Your task to perform on an android device: open sync settings in chrome Image 0: 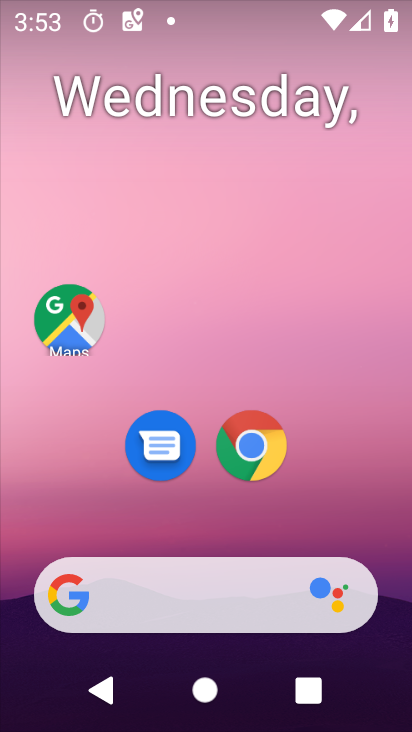
Step 0: drag from (192, 522) to (222, 122)
Your task to perform on an android device: open sync settings in chrome Image 1: 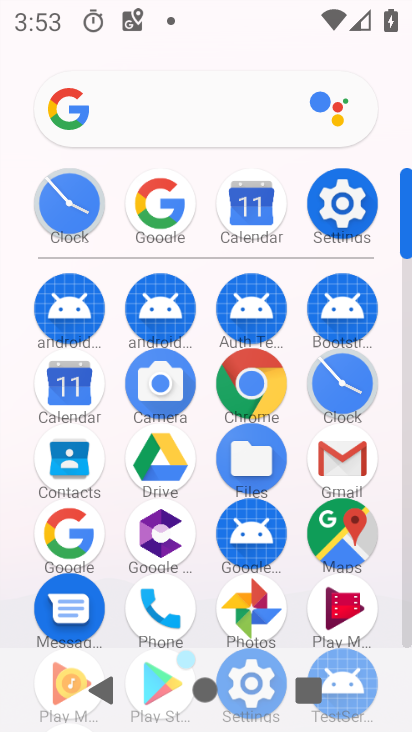
Step 1: click (250, 390)
Your task to perform on an android device: open sync settings in chrome Image 2: 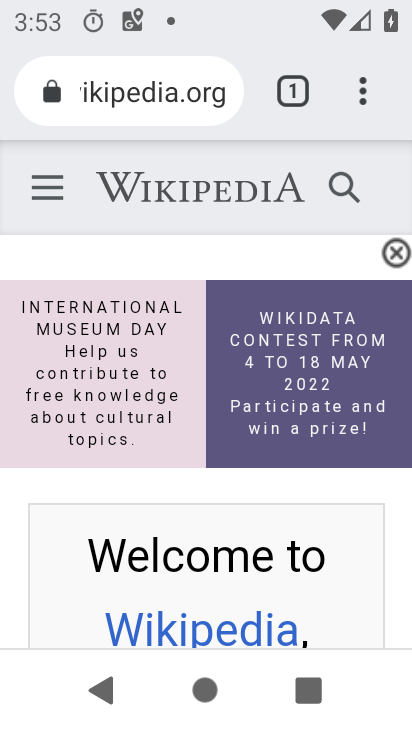
Step 2: click (359, 92)
Your task to perform on an android device: open sync settings in chrome Image 3: 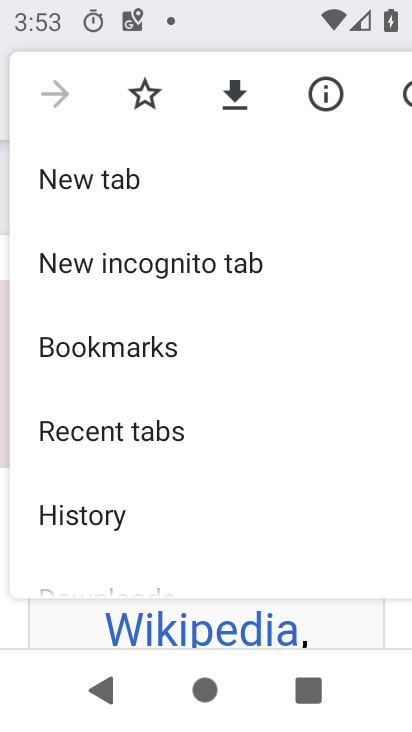
Step 3: drag from (222, 472) to (233, 66)
Your task to perform on an android device: open sync settings in chrome Image 4: 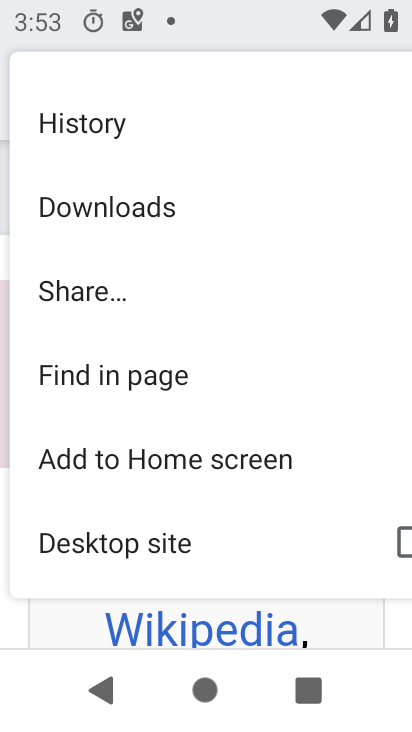
Step 4: drag from (184, 453) to (219, 142)
Your task to perform on an android device: open sync settings in chrome Image 5: 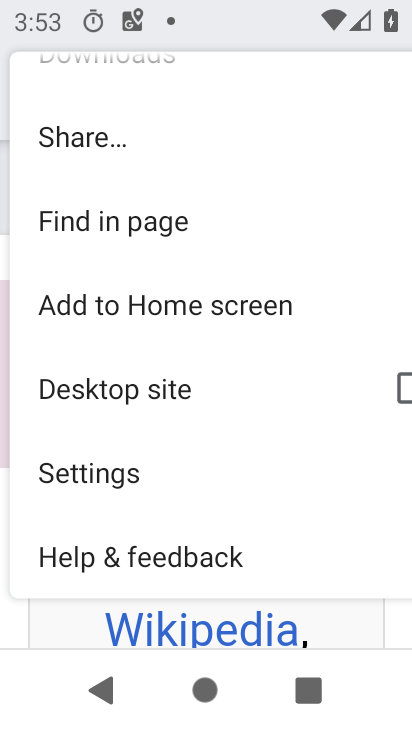
Step 5: click (153, 481)
Your task to perform on an android device: open sync settings in chrome Image 6: 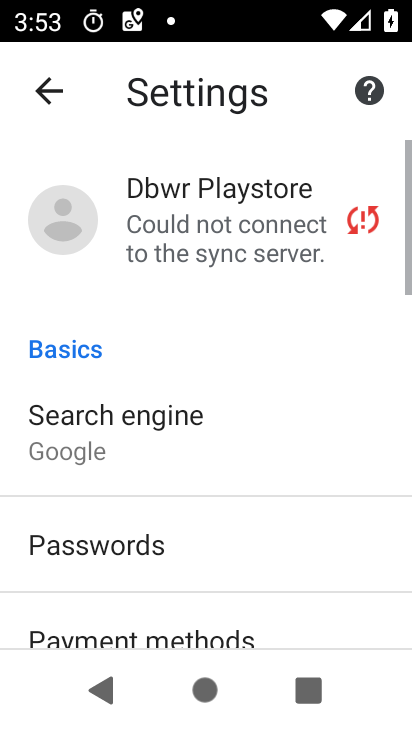
Step 6: drag from (253, 541) to (287, 103)
Your task to perform on an android device: open sync settings in chrome Image 7: 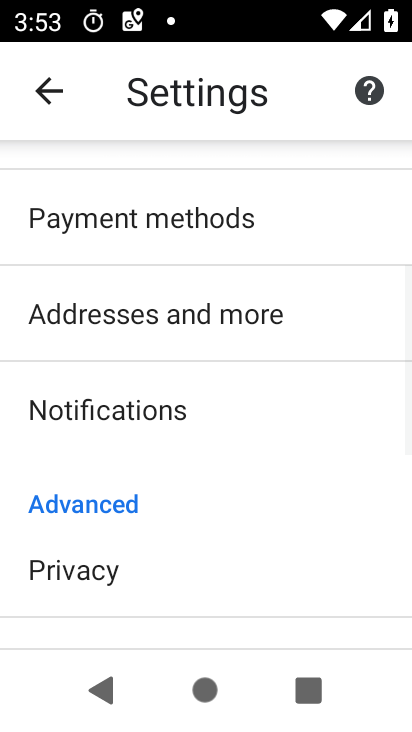
Step 7: drag from (214, 508) to (213, 140)
Your task to perform on an android device: open sync settings in chrome Image 8: 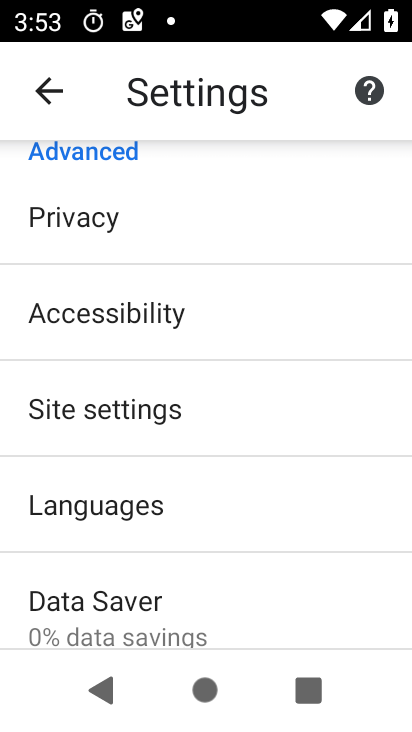
Step 8: click (132, 410)
Your task to perform on an android device: open sync settings in chrome Image 9: 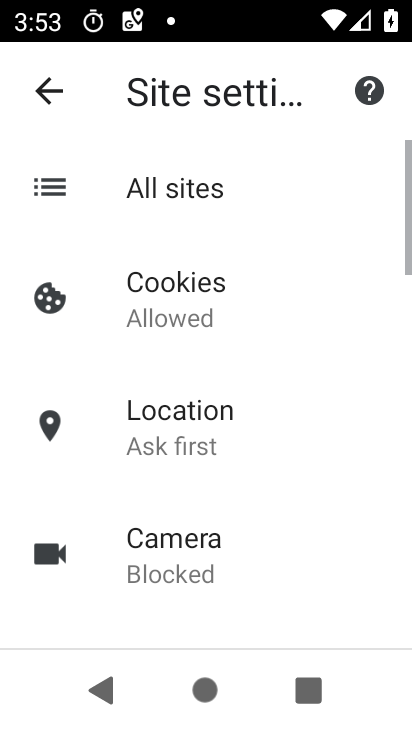
Step 9: drag from (300, 564) to (298, 108)
Your task to perform on an android device: open sync settings in chrome Image 10: 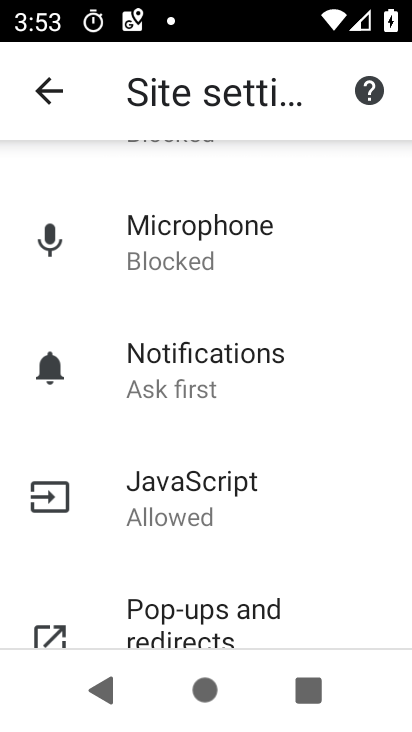
Step 10: drag from (247, 502) to (241, 108)
Your task to perform on an android device: open sync settings in chrome Image 11: 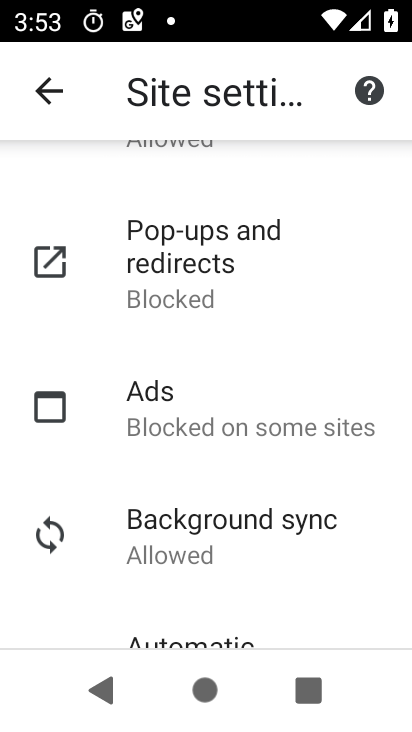
Step 11: click (203, 536)
Your task to perform on an android device: open sync settings in chrome Image 12: 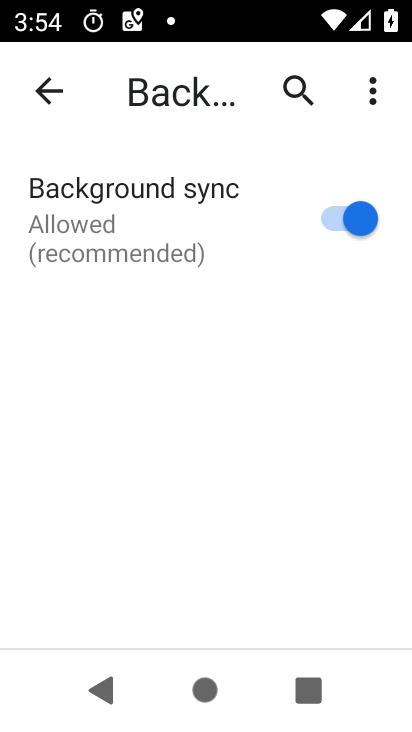
Step 12: task complete